Your task to perform on an android device: change notification settings in the gmail app Image 0: 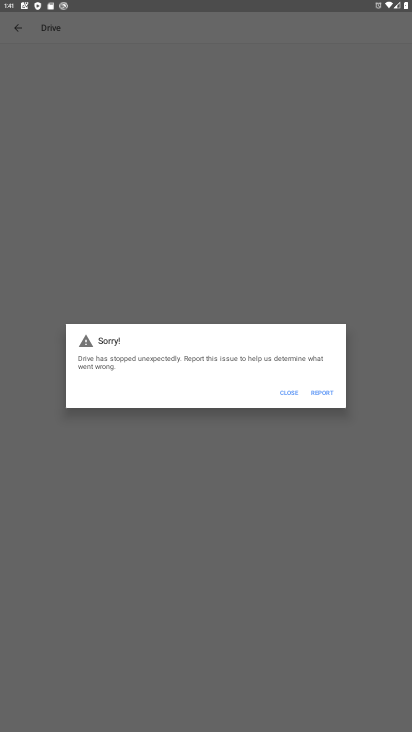
Step 0: press home button
Your task to perform on an android device: change notification settings in the gmail app Image 1: 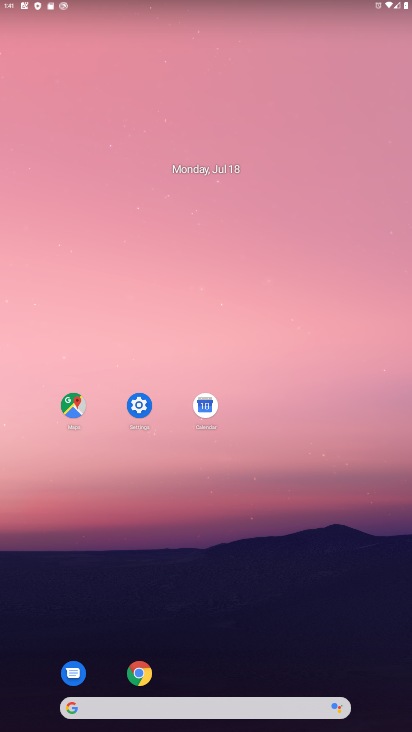
Step 1: press home button
Your task to perform on an android device: change notification settings in the gmail app Image 2: 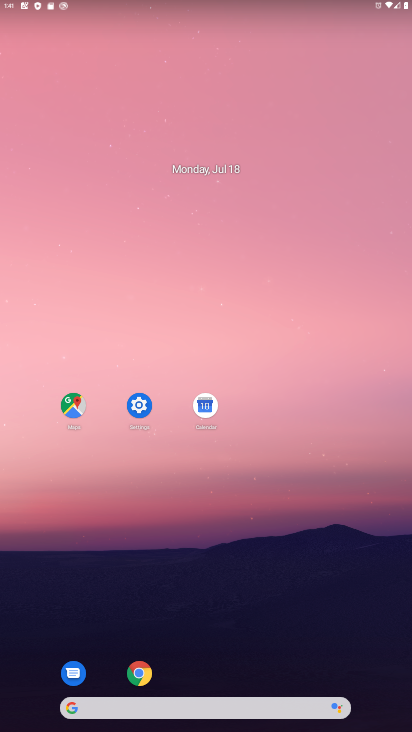
Step 2: drag from (365, 609) to (300, 125)
Your task to perform on an android device: change notification settings in the gmail app Image 3: 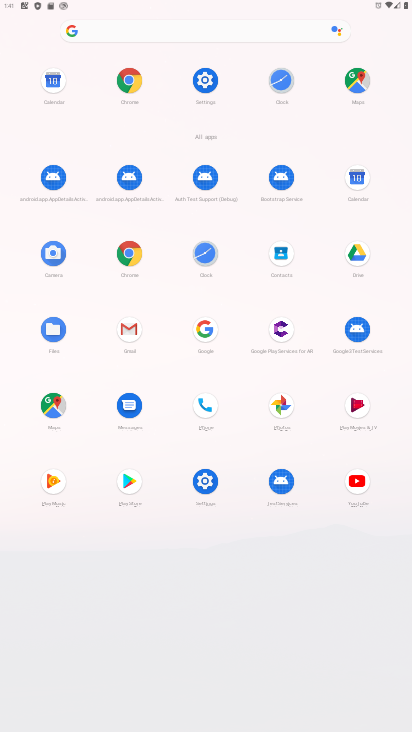
Step 3: click (137, 329)
Your task to perform on an android device: change notification settings in the gmail app Image 4: 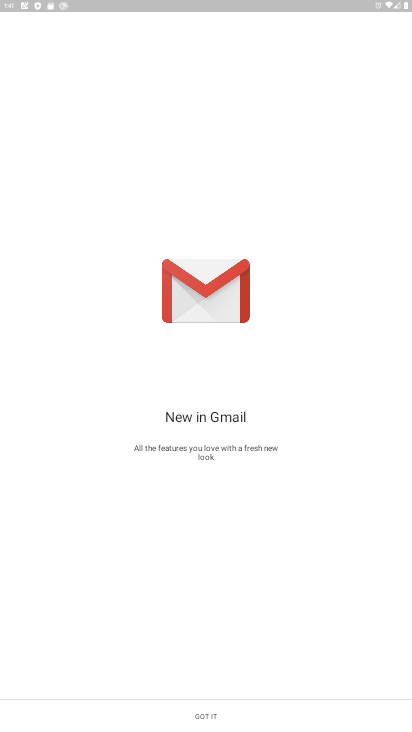
Step 4: click (208, 707)
Your task to perform on an android device: change notification settings in the gmail app Image 5: 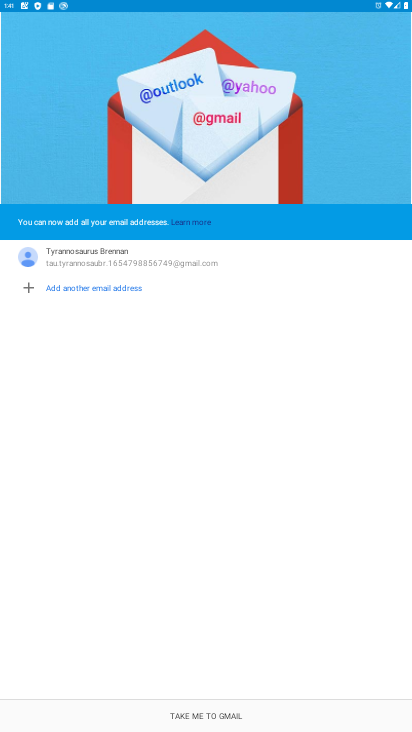
Step 5: click (200, 708)
Your task to perform on an android device: change notification settings in the gmail app Image 6: 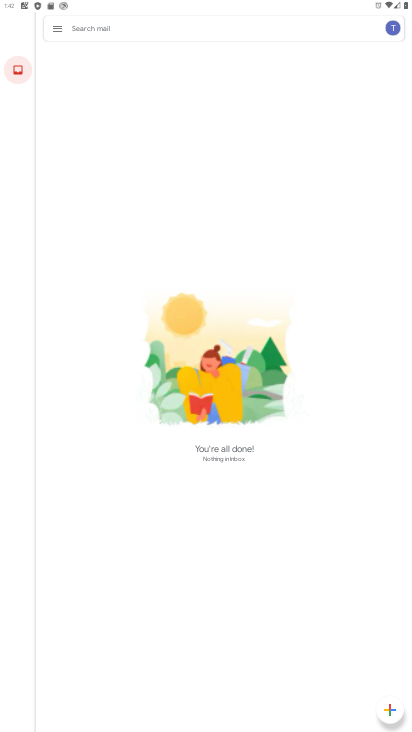
Step 6: click (59, 27)
Your task to perform on an android device: change notification settings in the gmail app Image 7: 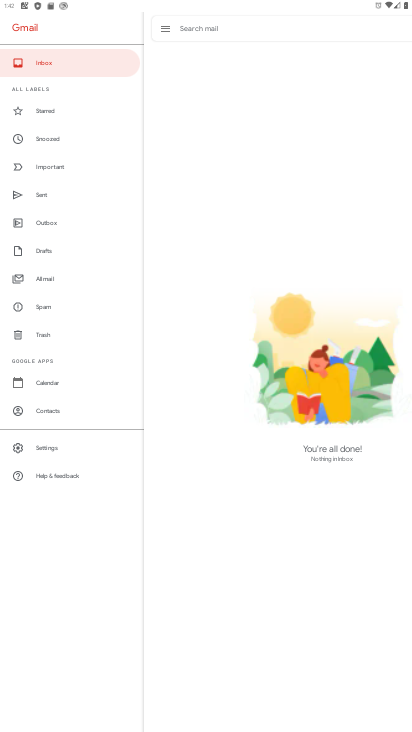
Step 7: click (40, 439)
Your task to perform on an android device: change notification settings in the gmail app Image 8: 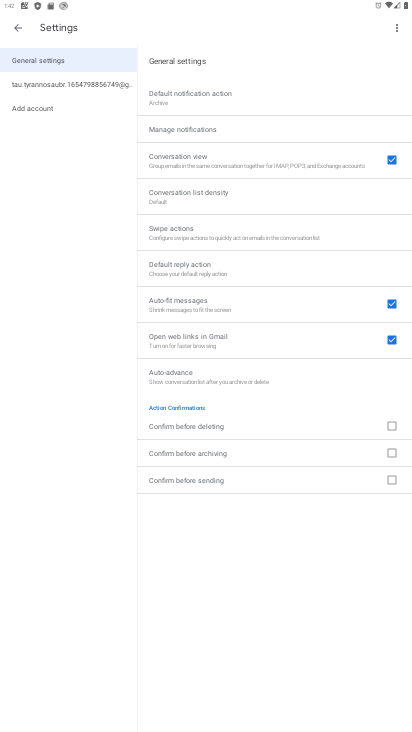
Step 8: click (176, 131)
Your task to perform on an android device: change notification settings in the gmail app Image 9: 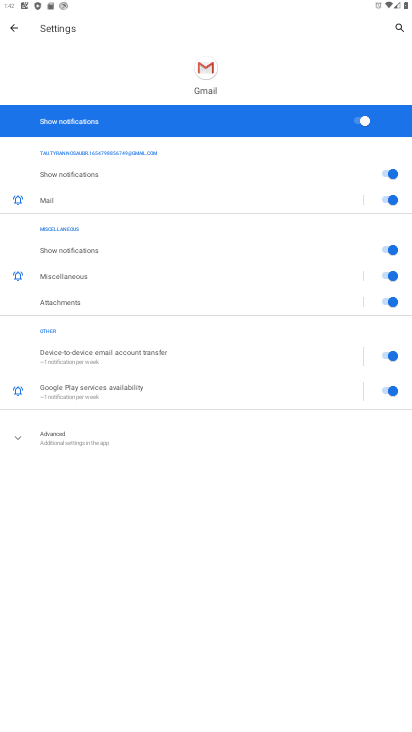
Step 9: click (358, 122)
Your task to perform on an android device: change notification settings in the gmail app Image 10: 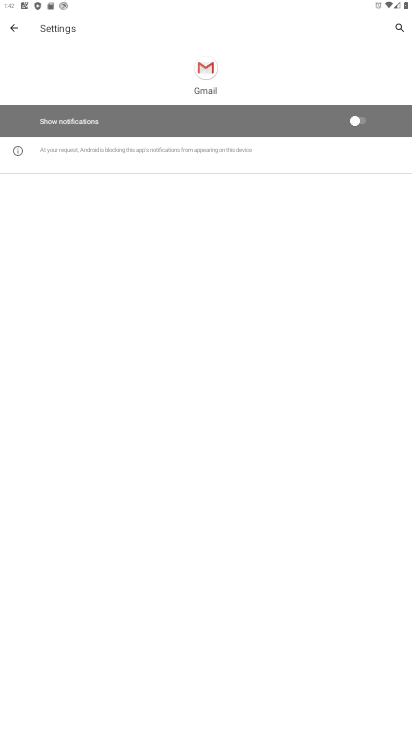
Step 10: task complete